Your task to perform on an android device: install app "Speedtest by Ookla" Image 0: 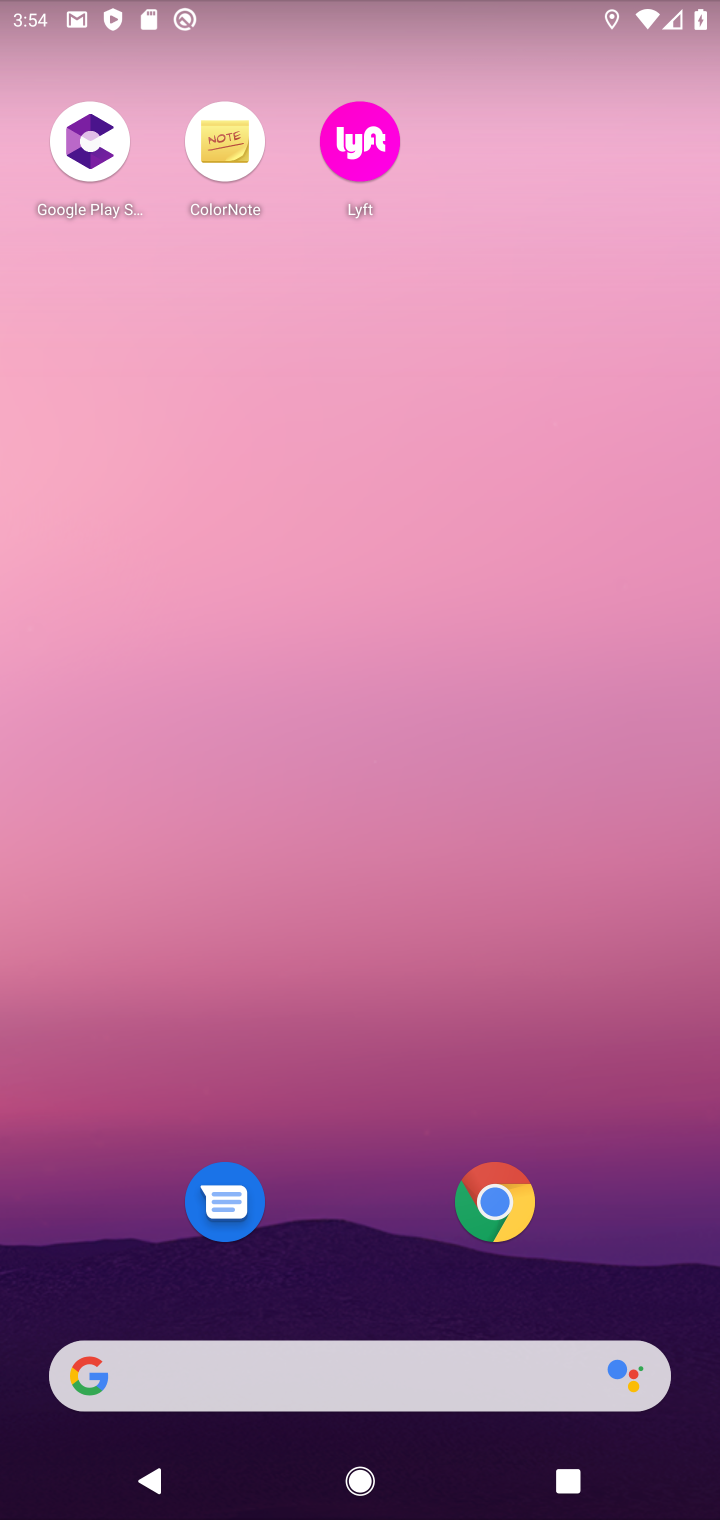
Step 0: press home button
Your task to perform on an android device: install app "Speedtest by Ookla" Image 1: 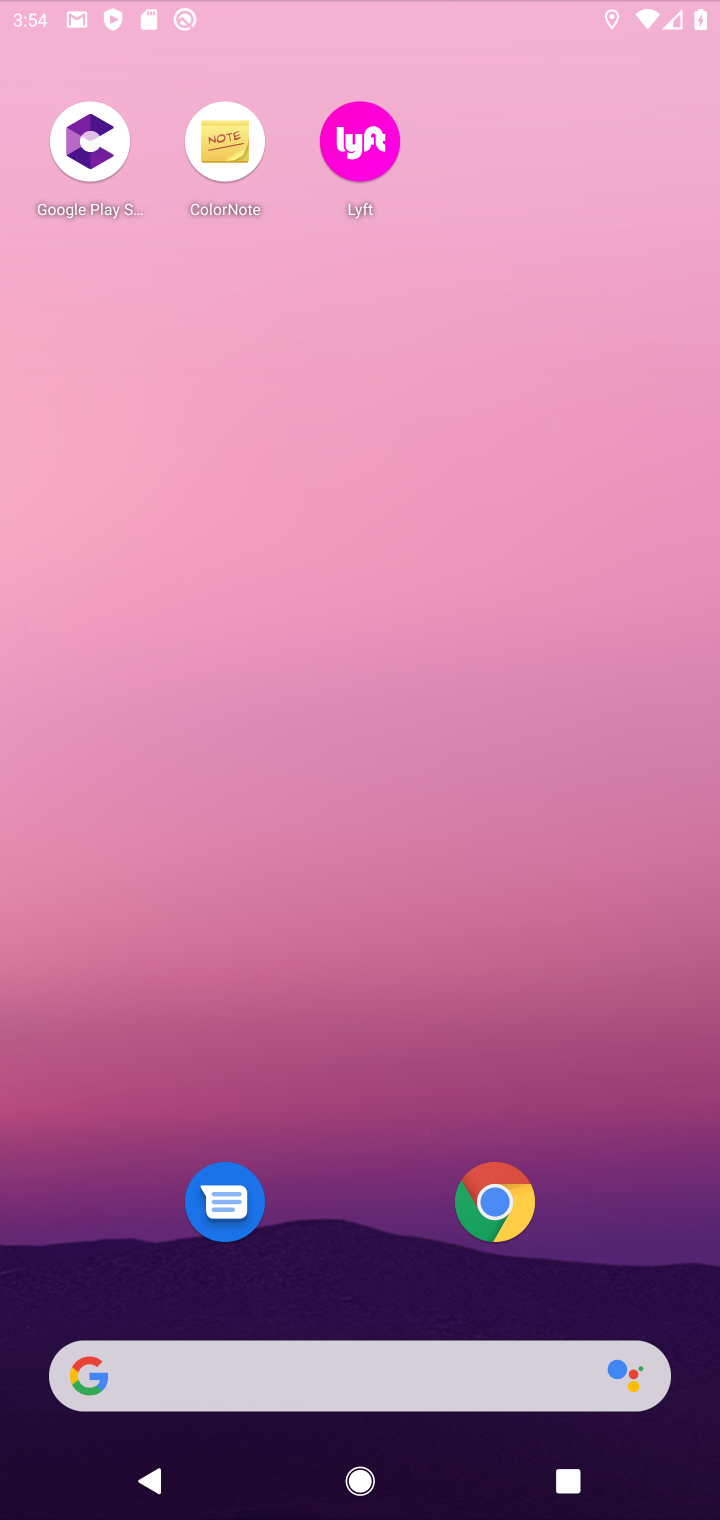
Step 1: drag from (369, 1028) to (398, 278)
Your task to perform on an android device: install app "Speedtest by Ookla" Image 2: 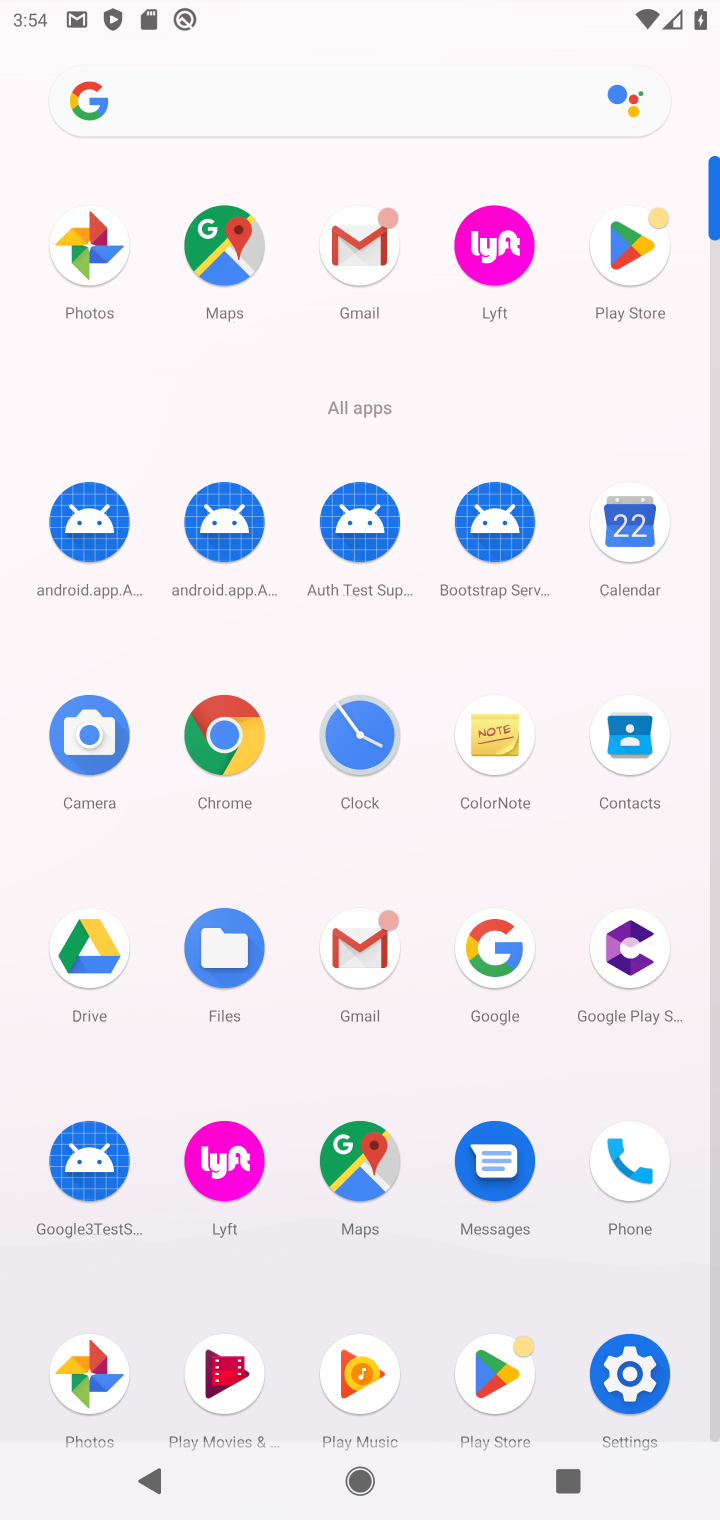
Step 2: click (641, 256)
Your task to perform on an android device: install app "Speedtest by Ookla" Image 3: 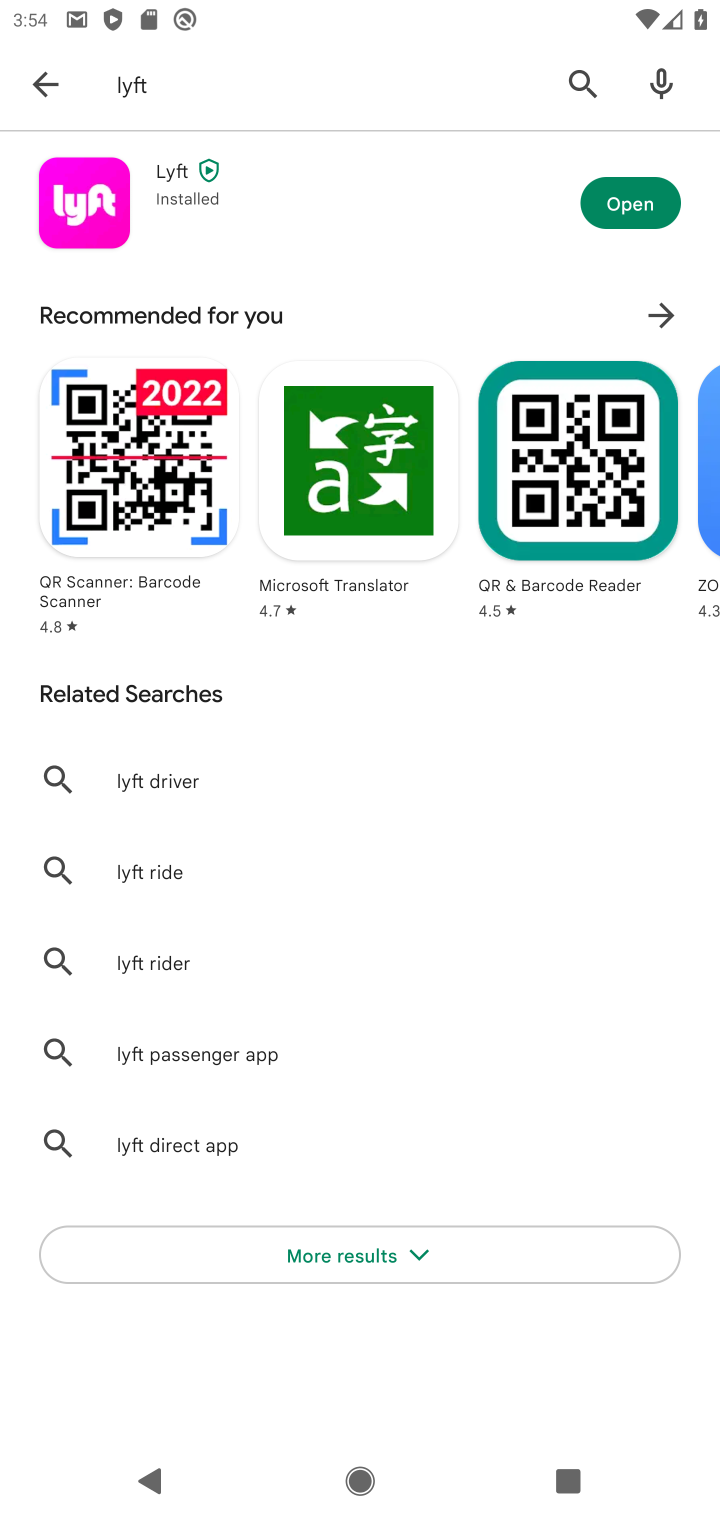
Step 3: click (303, 40)
Your task to perform on an android device: install app "Speedtest by Ookla" Image 4: 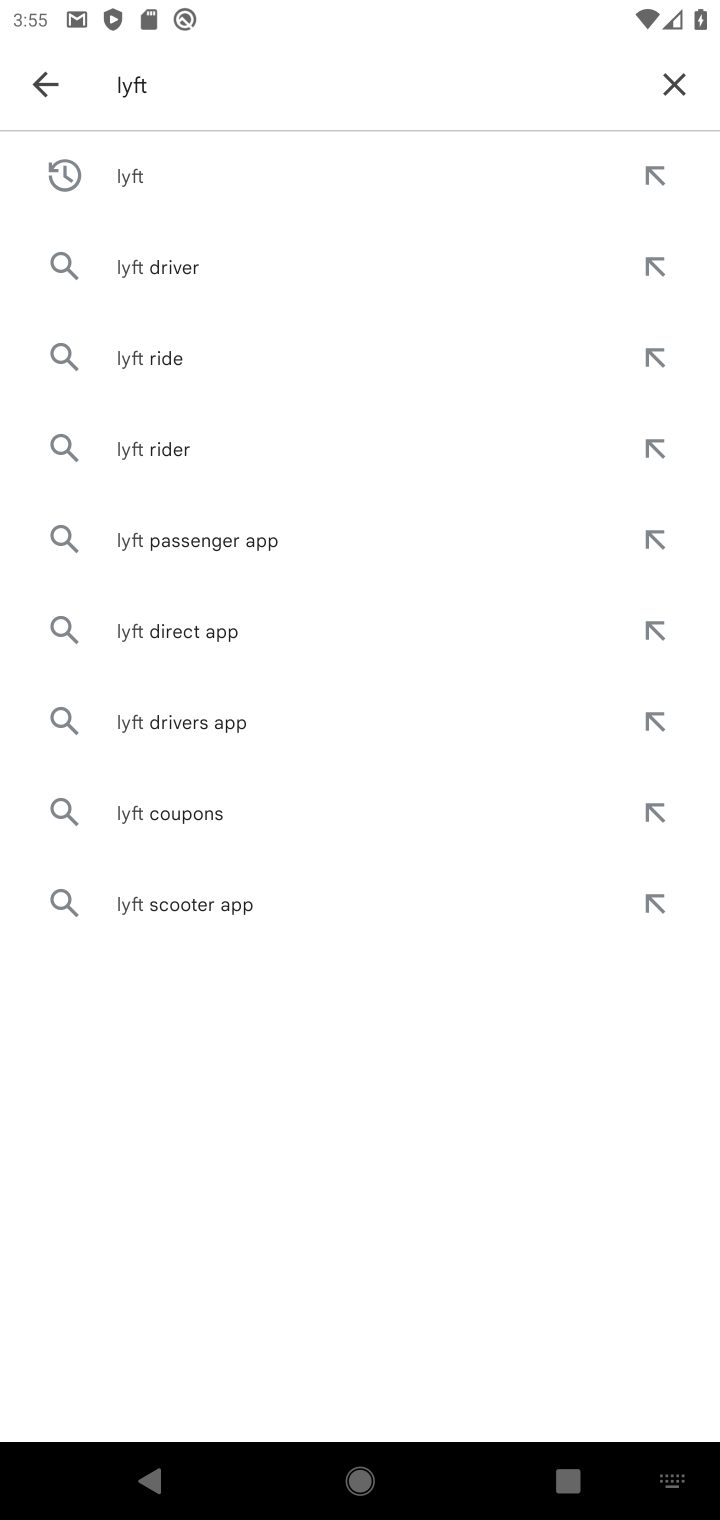
Step 4: click (663, 83)
Your task to perform on an android device: install app "Speedtest by Ookla" Image 5: 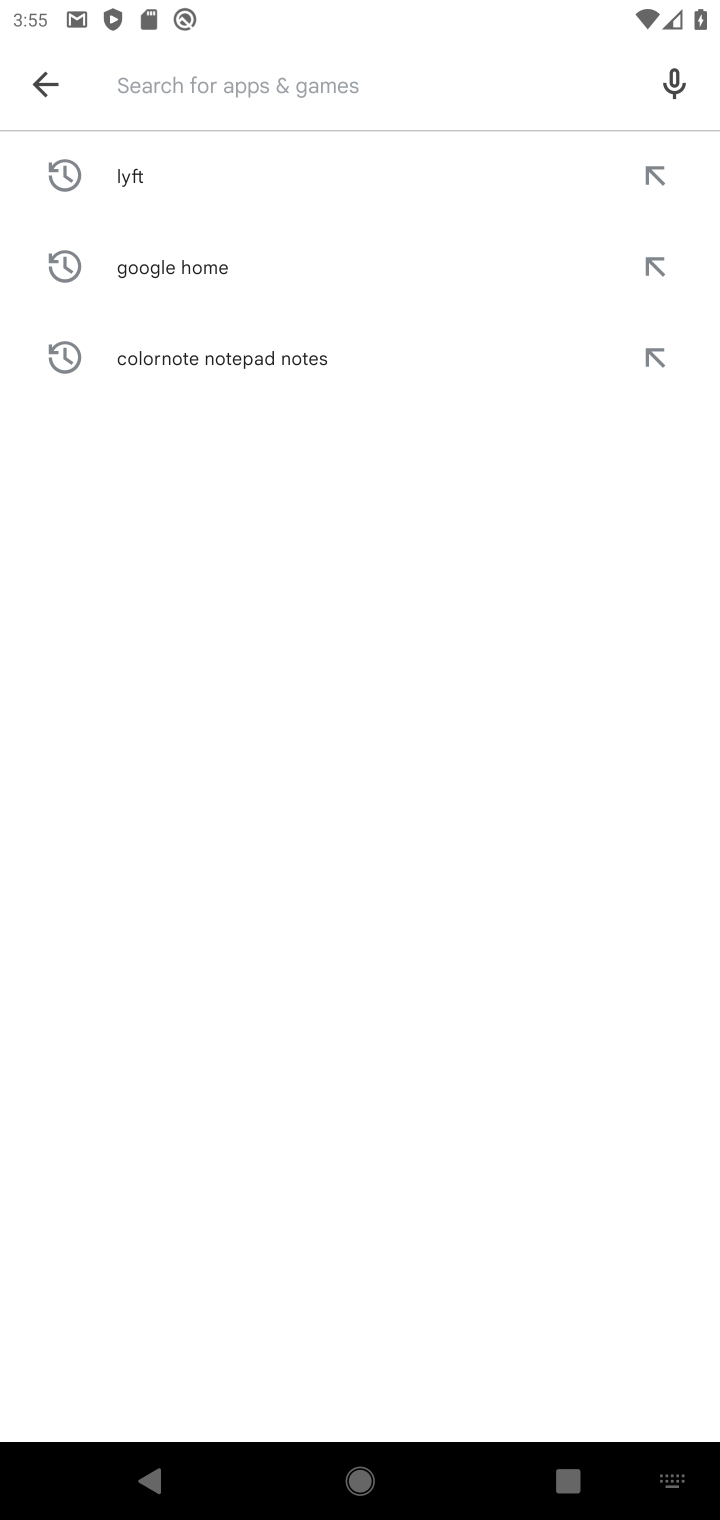
Step 5: type "speedtest byn Ookla"
Your task to perform on an android device: install app "Speedtest by Ookla" Image 6: 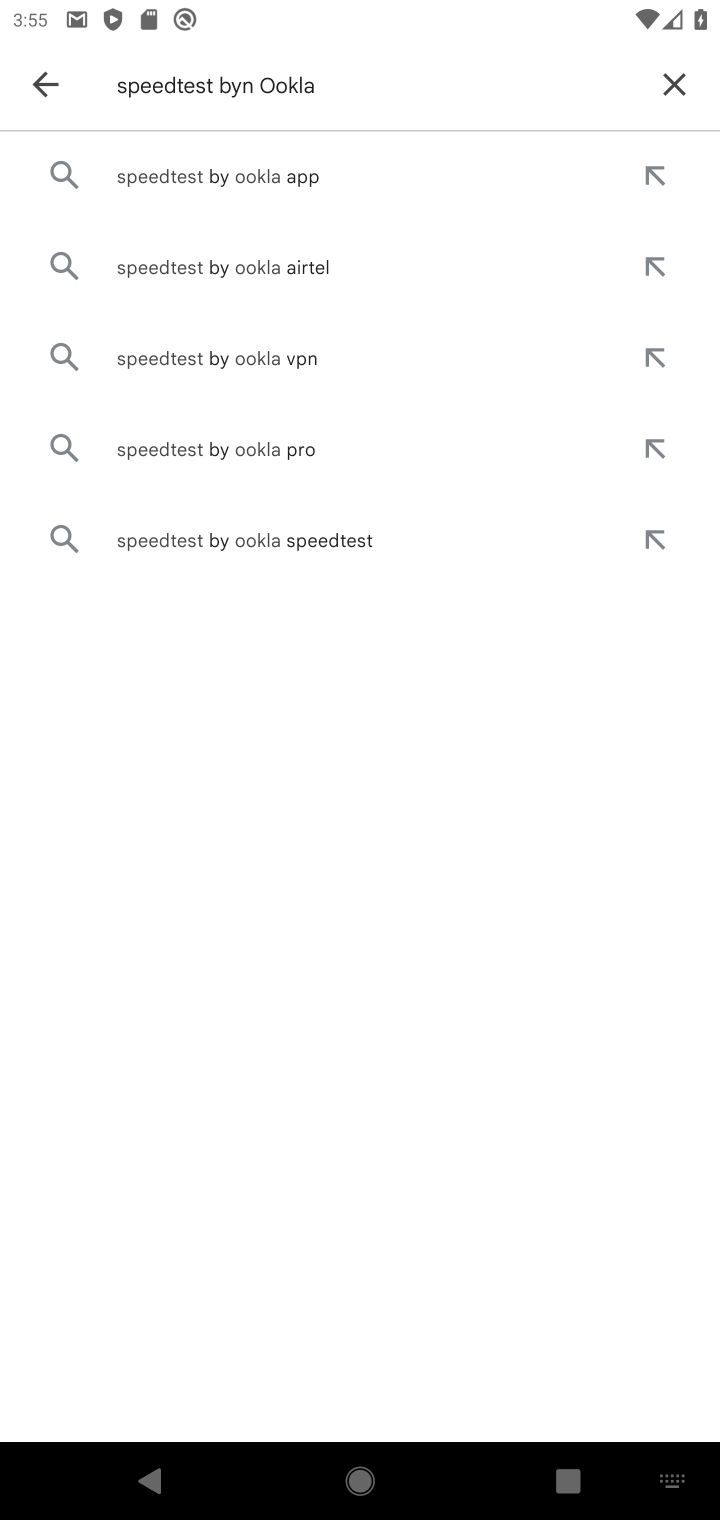
Step 6: click (253, 169)
Your task to perform on an android device: install app "Speedtest by Ookla" Image 7: 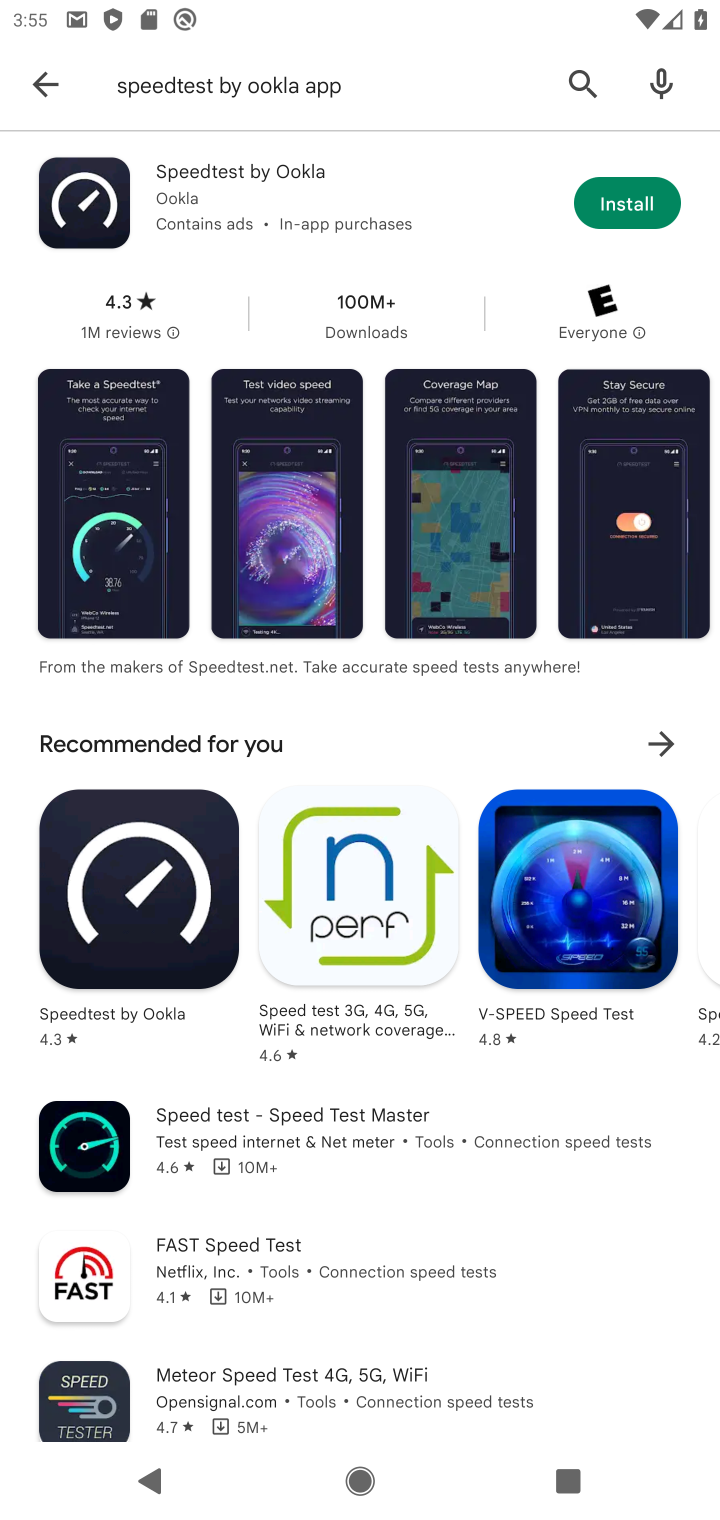
Step 7: click (652, 190)
Your task to perform on an android device: install app "Speedtest by Ookla" Image 8: 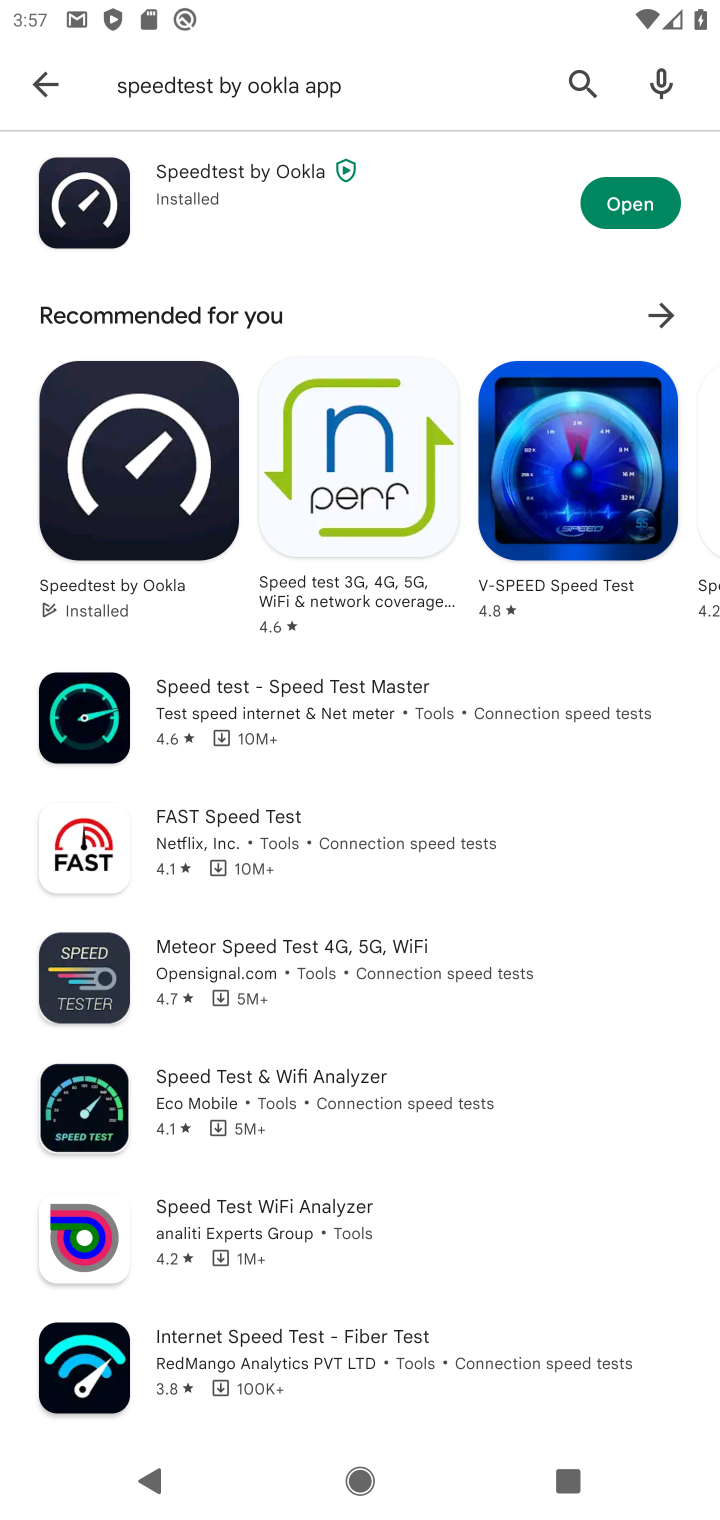
Step 8: task complete